Your task to perform on an android device: install app "Indeed Job Search" Image 0: 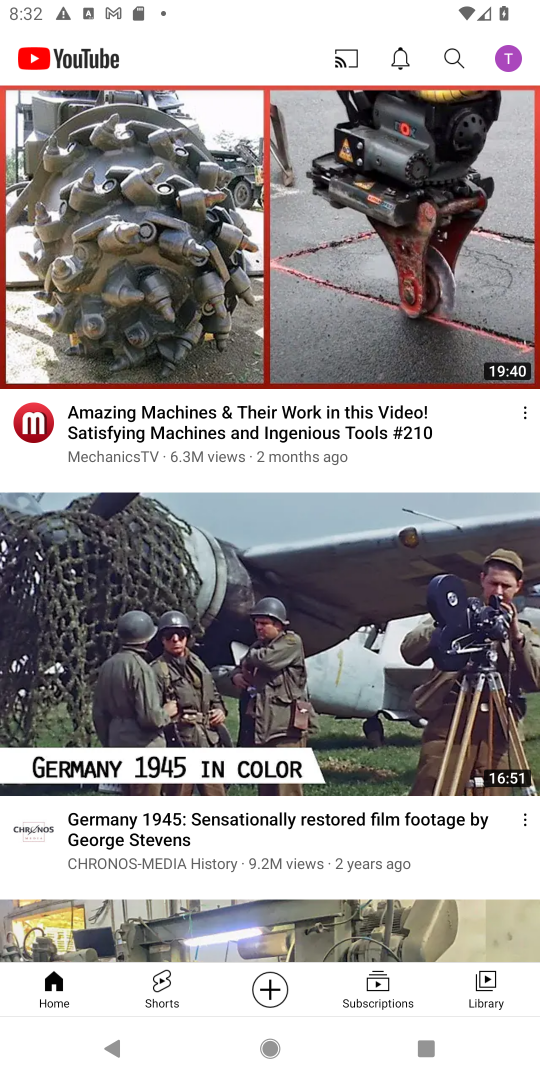
Step 0: press home button
Your task to perform on an android device: install app "Indeed Job Search" Image 1: 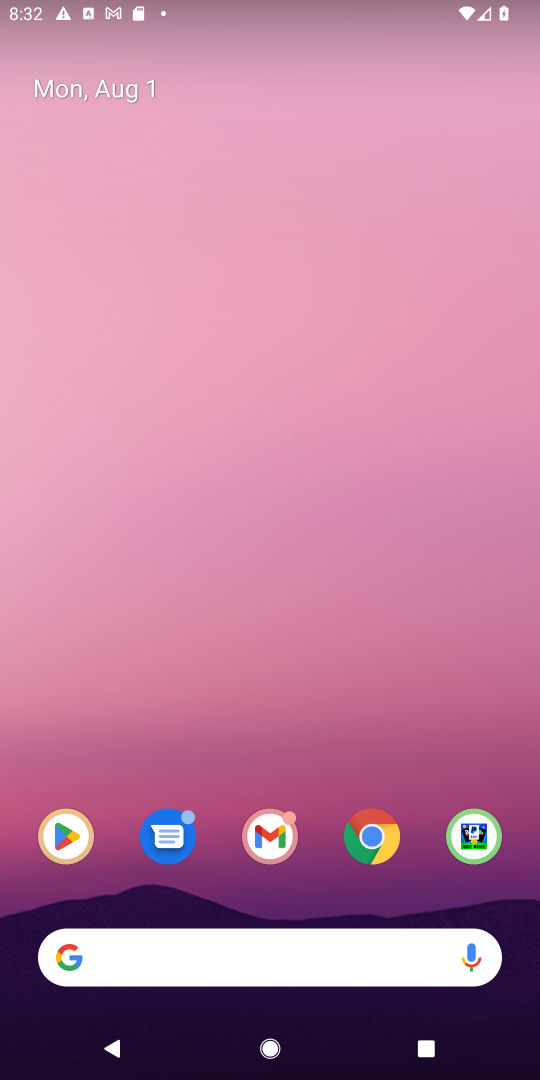
Step 1: click (64, 833)
Your task to perform on an android device: install app "Indeed Job Search" Image 2: 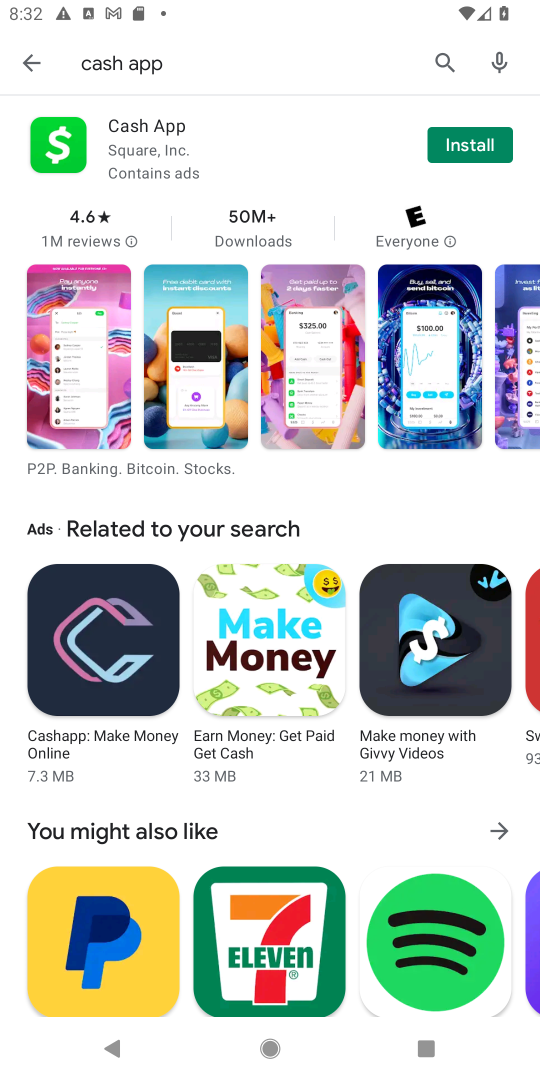
Step 2: click (446, 63)
Your task to perform on an android device: install app "Indeed Job Search" Image 3: 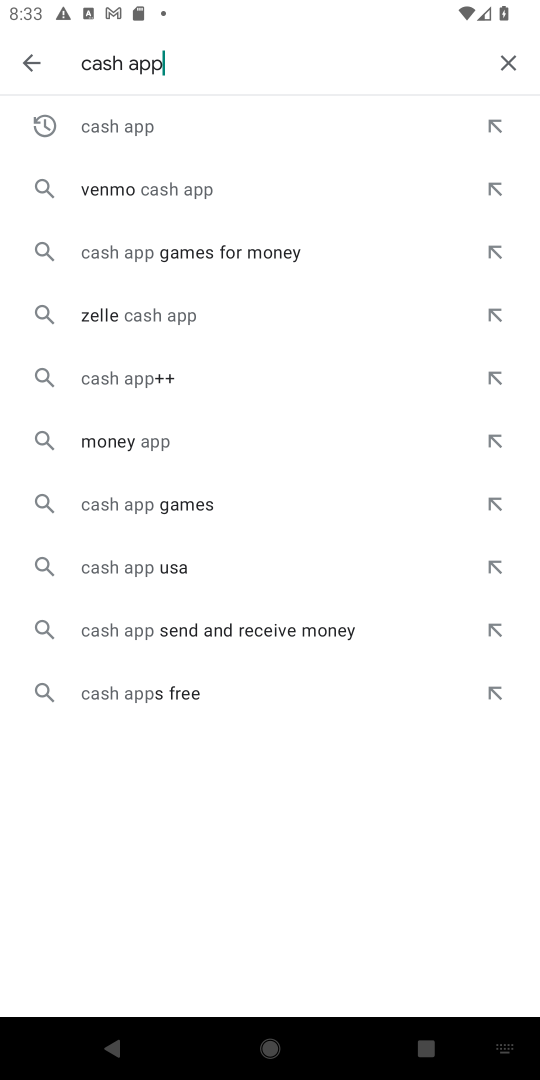
Step 3: click (509, 58)
Your task to perform on an android device: install app "Indeed Job Search" Image 4: 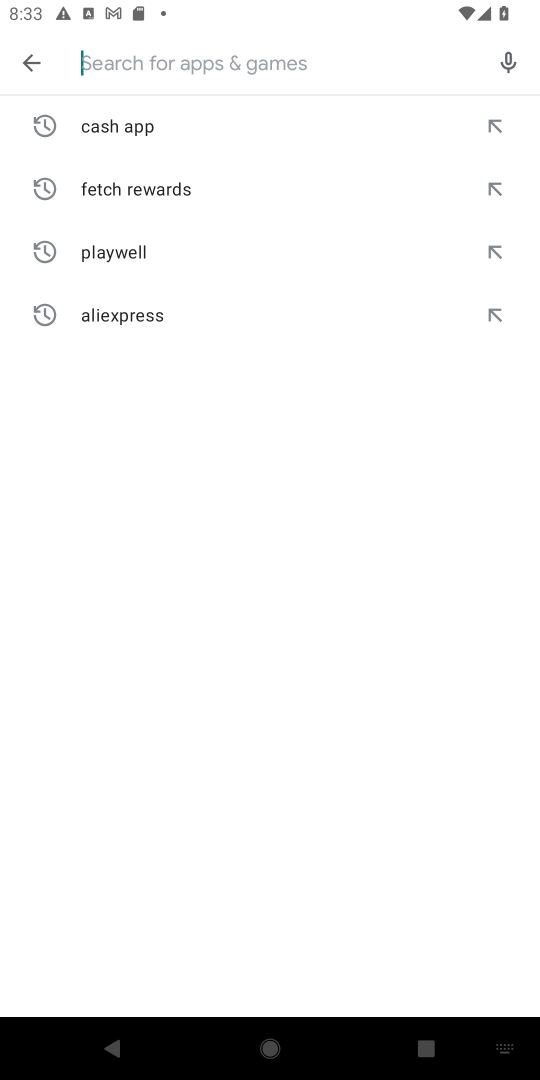
Step 4: type "Indeed Job Search"
Your task to perform on an android device: install app "Indeed Job Search" Image 5: 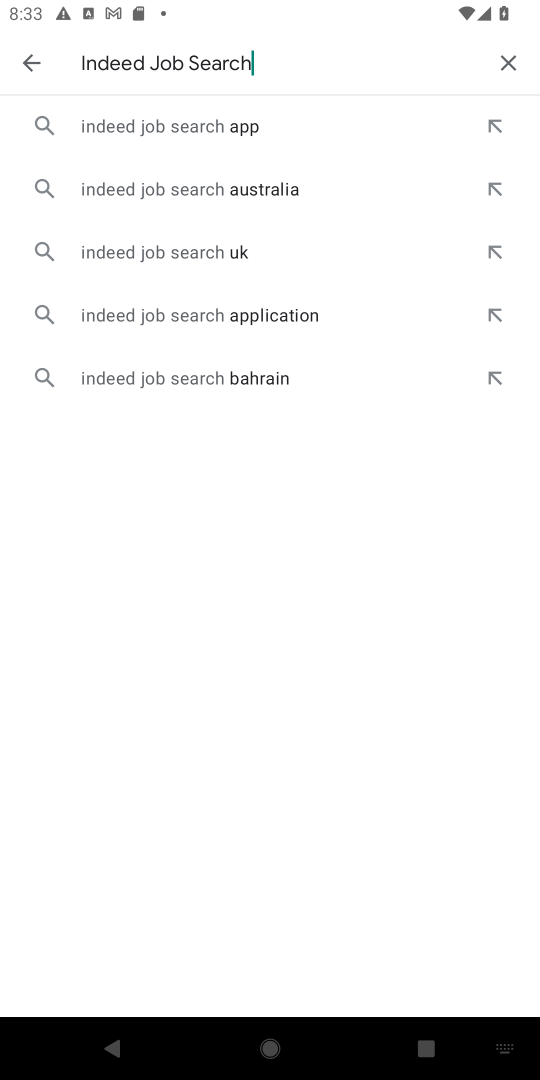
Step 5: click (211, 127)
Your task to perform on an android device: install app "Indeed Job Search" Image 6: 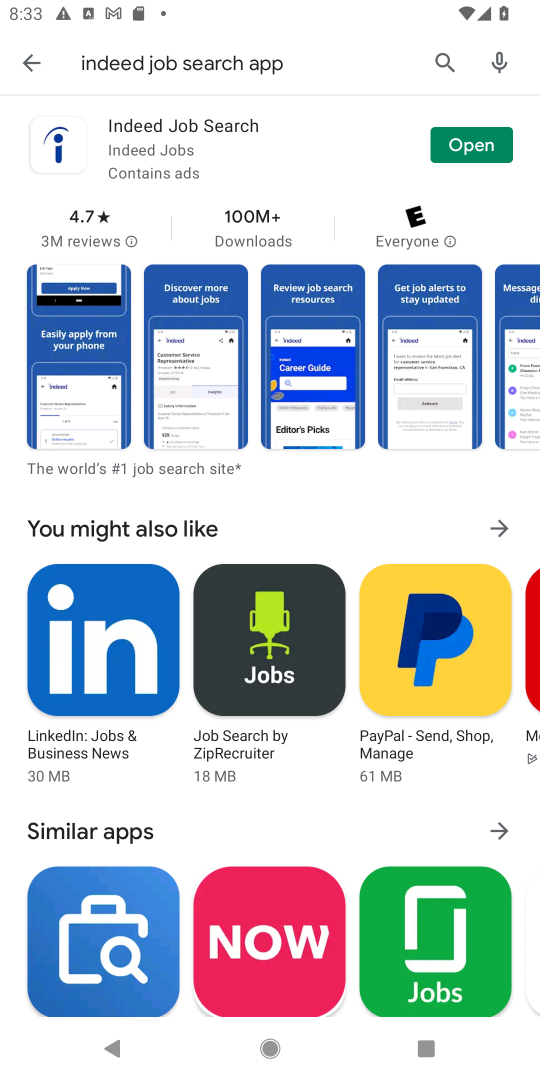
Step 6: task complete